Your task to perform on an android device: toggle javascript in the chrome app Image 0: 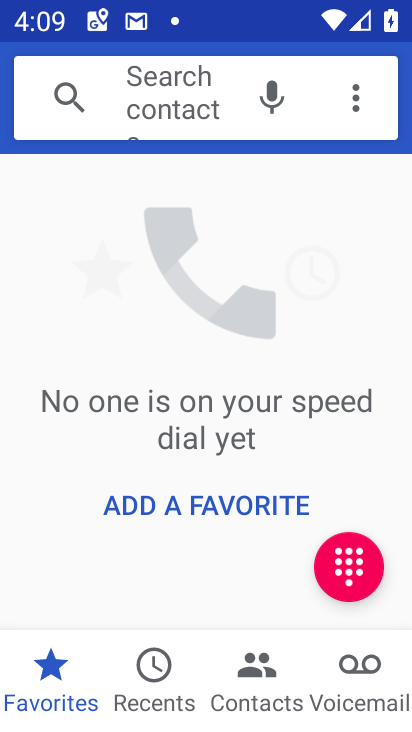
Step 0: press home button
Your task to perform on an android device: toggle javascript in the chrome app Image 1: 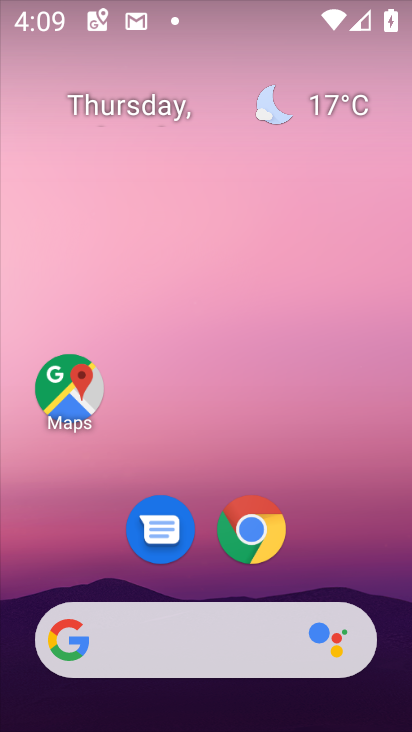
Step 1: drag from (122, 614) to (113, 21)
Your task to perform on an android device: toggle javascript in the chrome app Image 2: 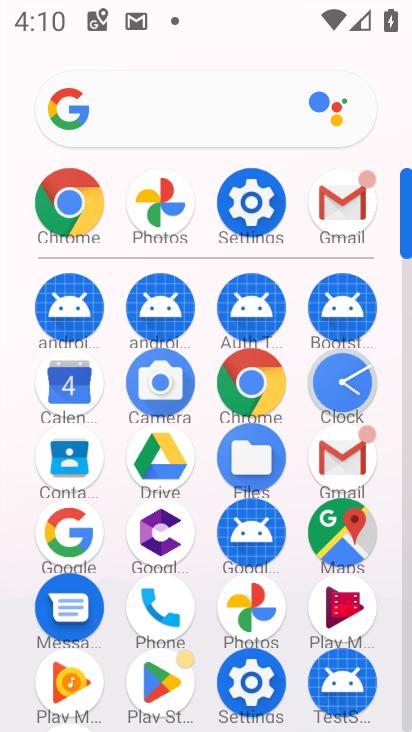
Step 2: click (241, 381)
Your task to perform on an android device: toggle javascript in the chrome app Image 3: 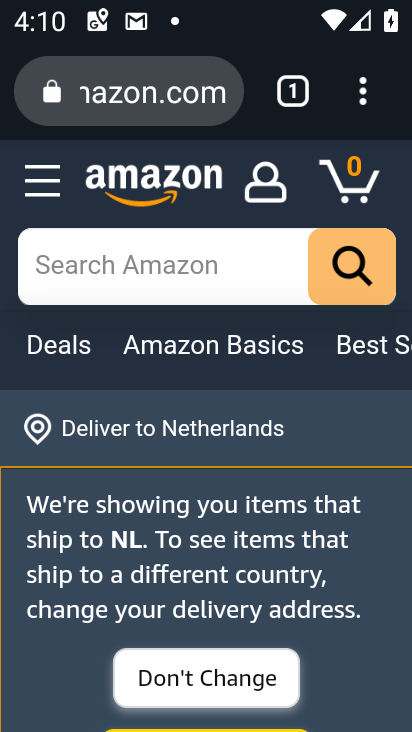
Step 3: click (368, 96)
Your task to perform on an android device: toggle javascript in the chrome app Image 4: 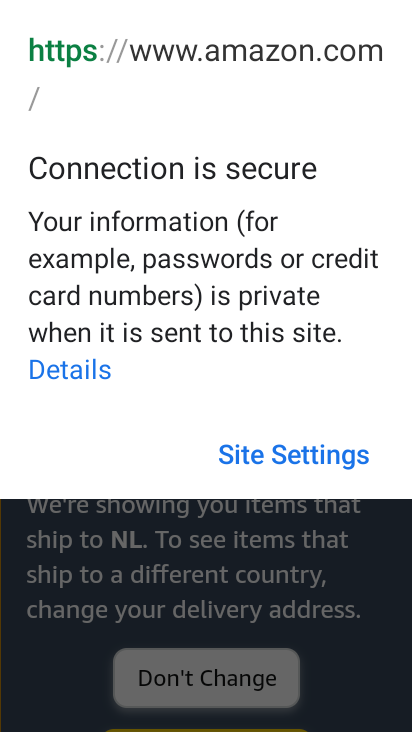
Step 4: press home button
Your task to perform on an android device: toggle javascript in the chrome app Image 5: 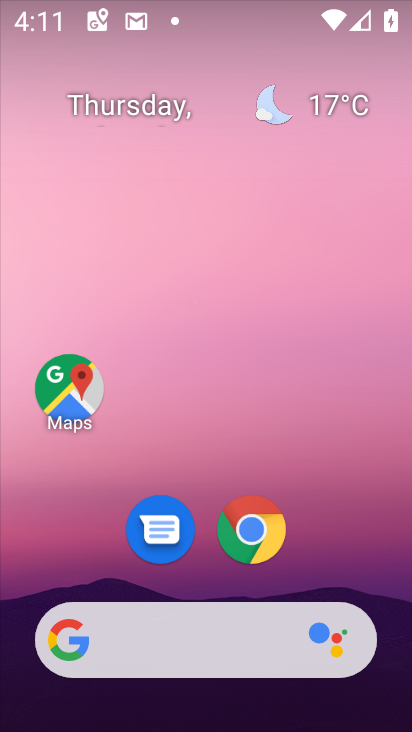
Step 5: click (278, 530)
Your task to perform on an android device: toggle javascript in the chrome app Image 6: 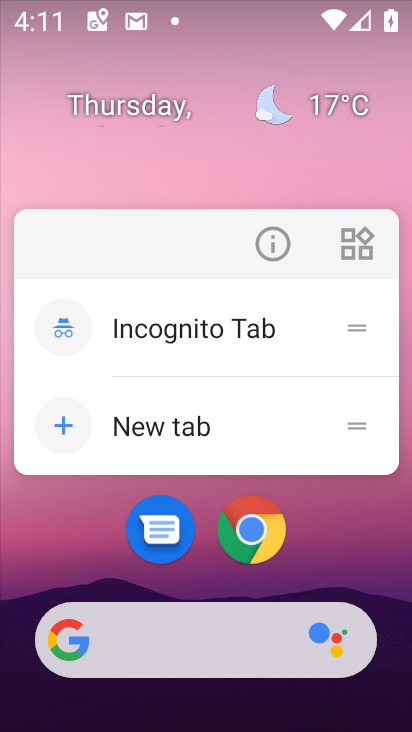
Step 6: click (168, 516)
Your task to perform on an android device: toggle javascript in the chrome app Image 7: 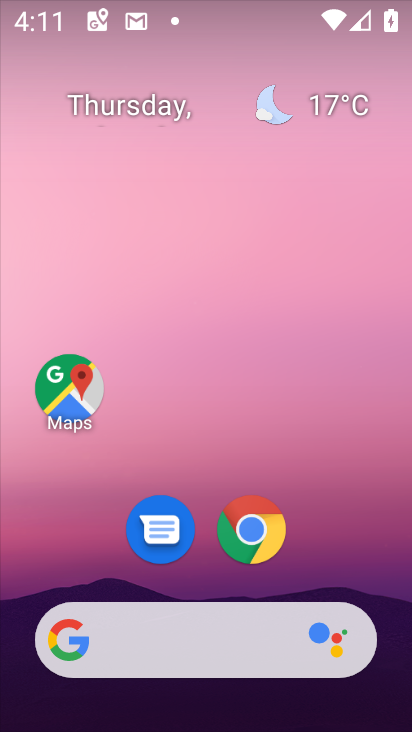
Step 7: click (251, 544)
Your task to perform on an android device: toggle javascript in the chrome app Image 8: 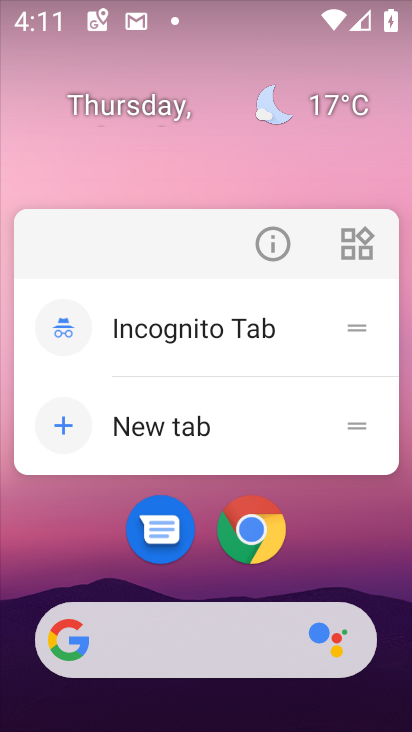
Step 8: click (251, 536)
Your task to perform on an android device: toggle javascript in the chrome app Image 9: 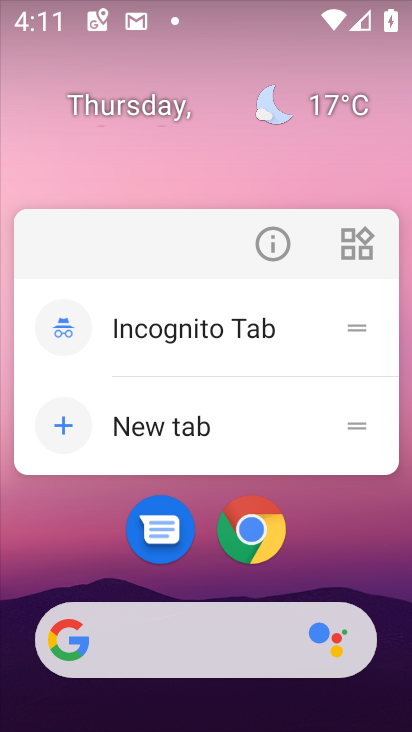
Step 9: task complete